Your task to perform on an android device: When is my next appointment? Image 0: 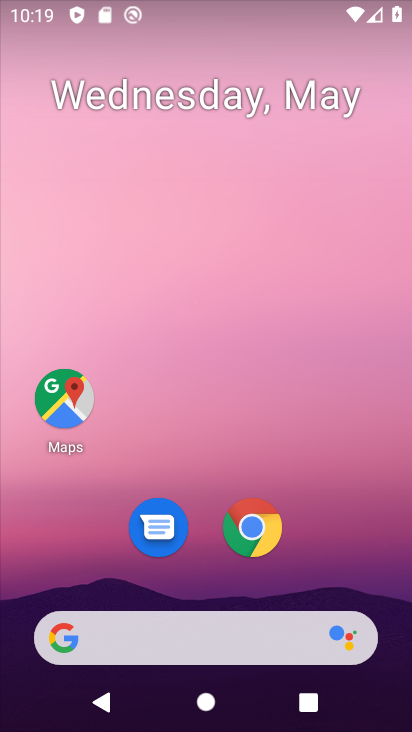
Step 0: click (195, 82)
Your task to perform on an android device: When is my next appointment? Image 1: 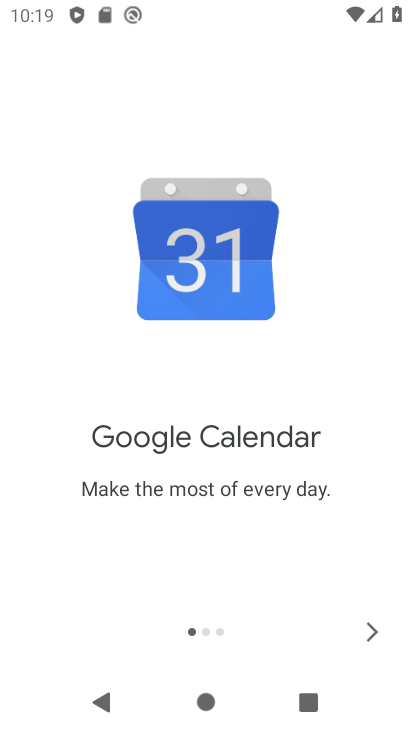
Step 1: click (361, 653)
Your task to perform on an android device: When is my next appointment? Image 2: 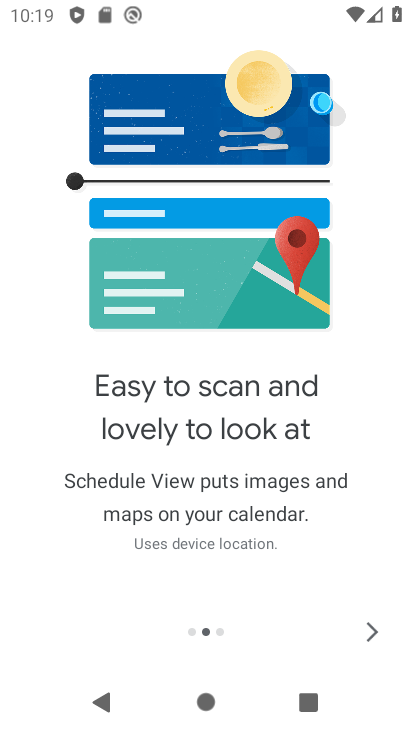
Step 2: click (361, 653)
Your task to perform on an android device: When is my next appointment? Image 3: 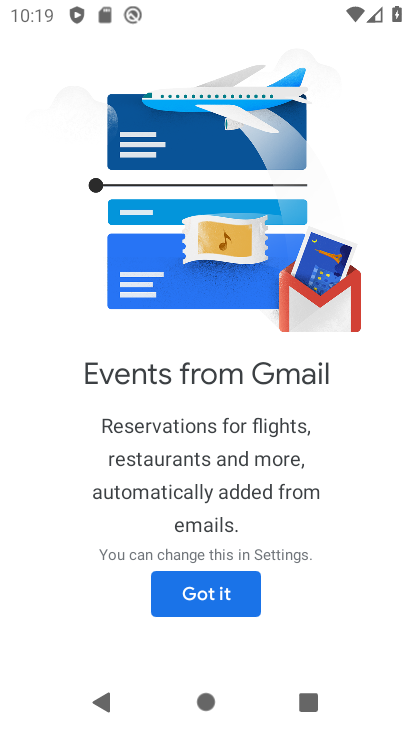
Step 3: click (191, 596)
Your task to perform on an android device: When is my next appointment? Image 4: 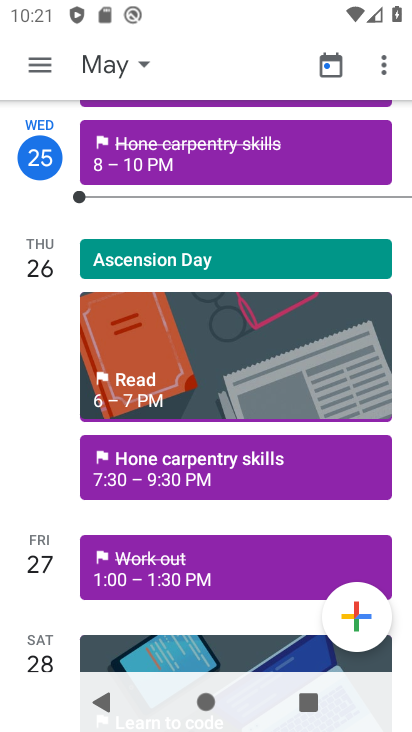
Step 4: task complete